Your task to perform on an android device: Clear the cart on walmart.com. Search for dell xps on walmart.com, select the first entry, add it to the cart, then select checkout. Image 0: 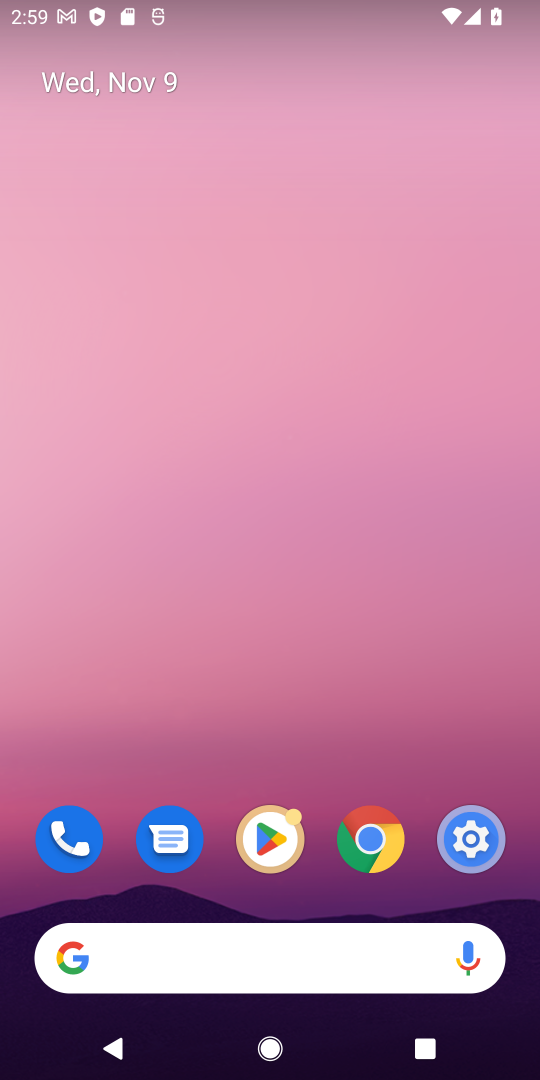
Step 0: click (321, 983)
Your task to perform on an android device: Clear the cart on walmart.com. Search for dell xps on walmart.com, select the first entry, add it to the cart, then select checkout. Image 1: 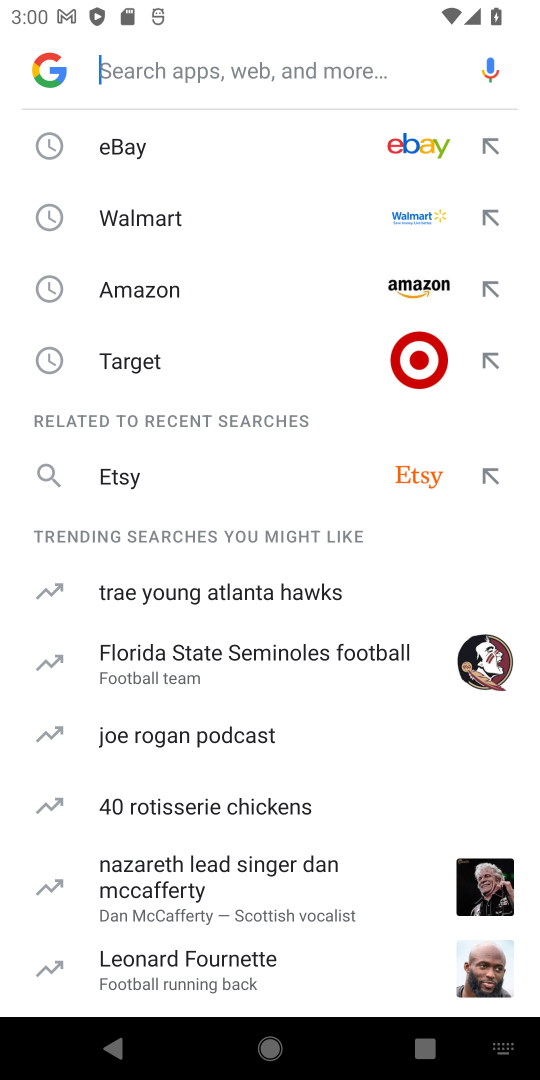
Step 1: click (158, 229)
Your task to perform on an android device: Clear the cart on walmart.com. Search for dell xps on walmart.com, select the first entry, add it to the cart, then select checkout. Image 2: 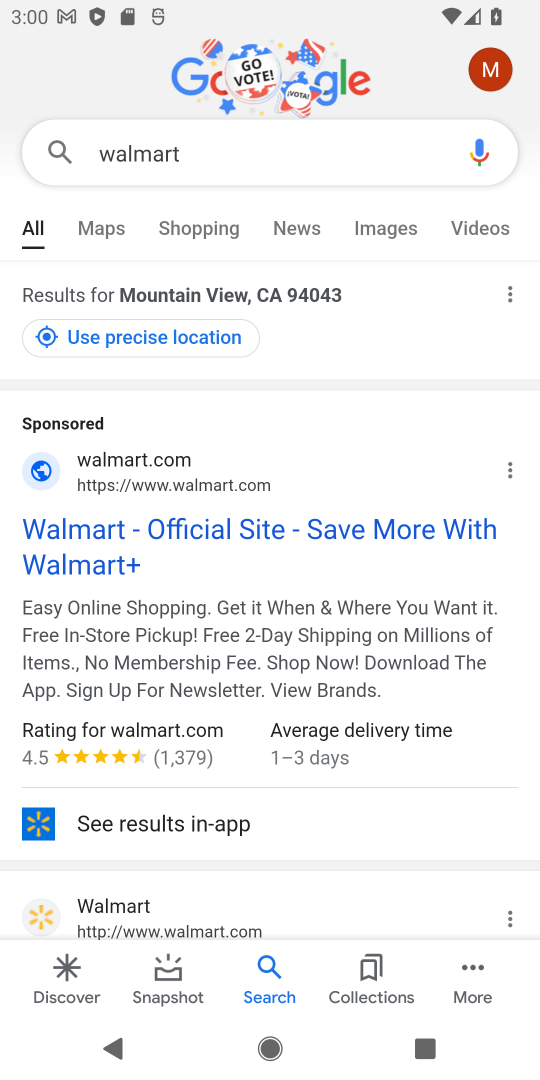
Step 2: click (83, 523)
Your task to perform on an android device: Clear the cart on walmart.com. Search for dell xps on walmart.com, select the first entry, add it to the cart, then select checkout. Image 3: 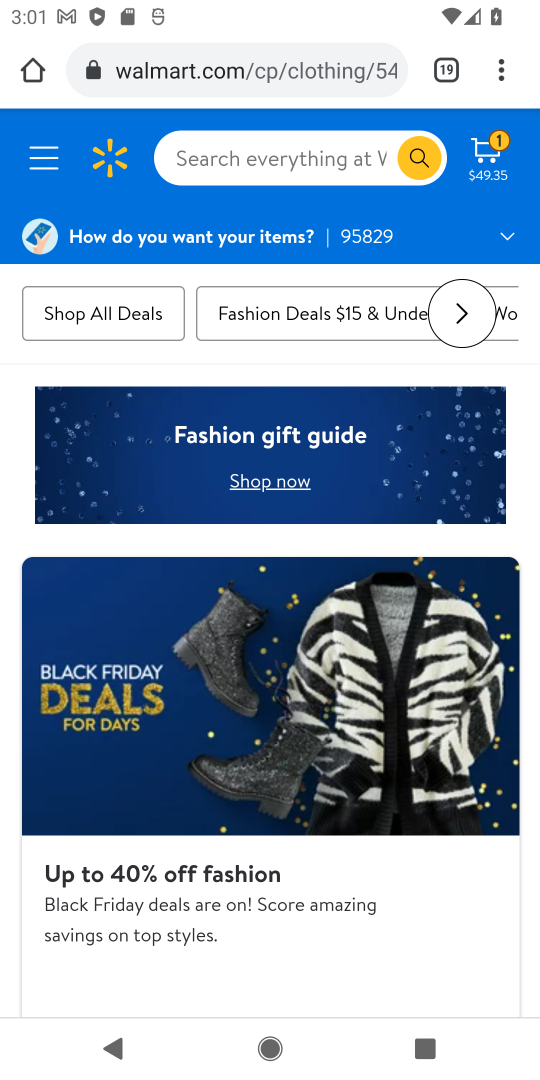
Step 3: task complete